Your task to perform on an android device: check battery use Image 0: 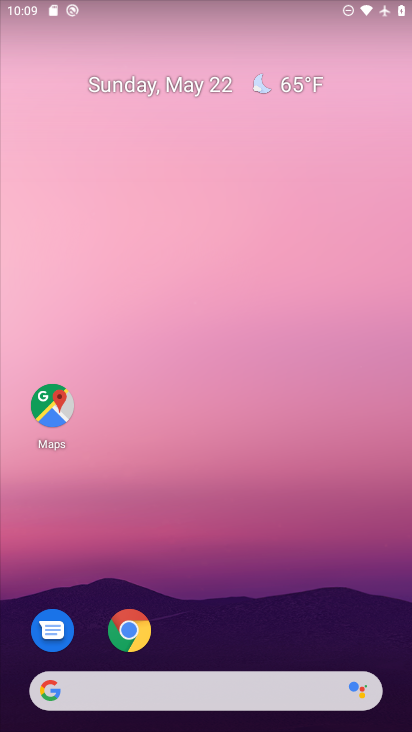
Step 0: drag from (189, 695) to (389, 60)
Your task to perform on an android device: check battery use Image 1: 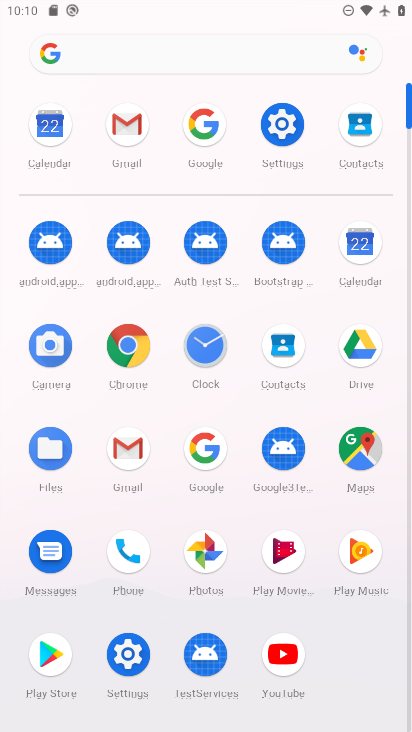
Step 1: click (291, 129)
Your task to perform on an android device: check battery use Image 2: 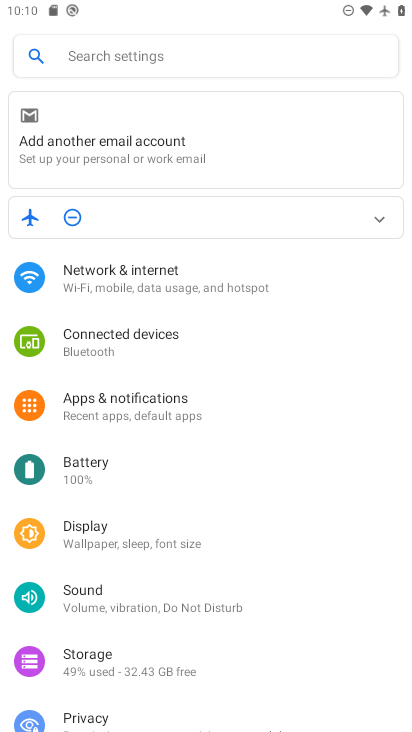
Step 2: drag from (211, 534) to (279, 326)
Your task to perform on an android device: check battery use Image 3: 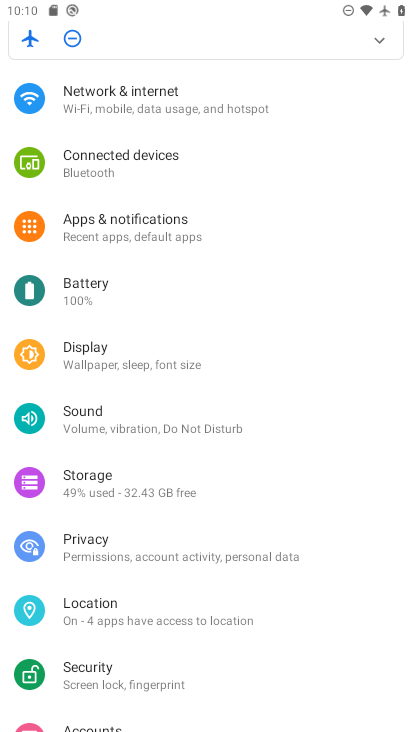
Step 3: click (109, 289)
Your task to perform on an android device: check battery use Image 4: 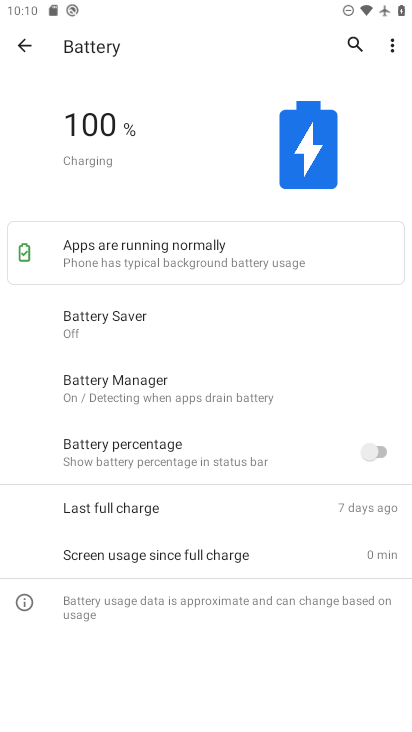
Step 4: click (391, 50)
Your task to perform on an android device: check battery use Image 5: 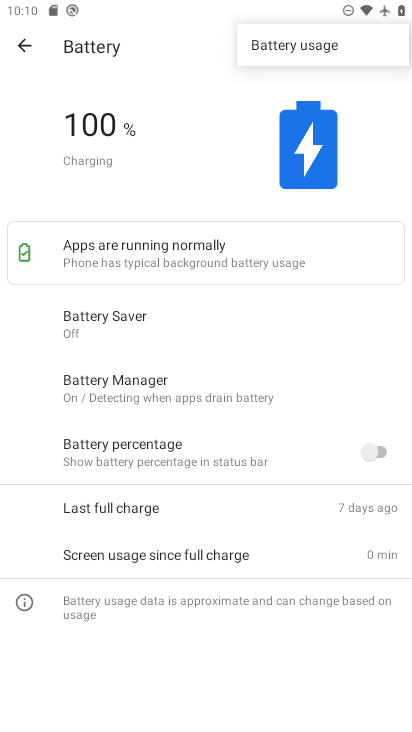
Step 5: click (307, 52)
Your task to perform on an android device: check battery use Image 6: 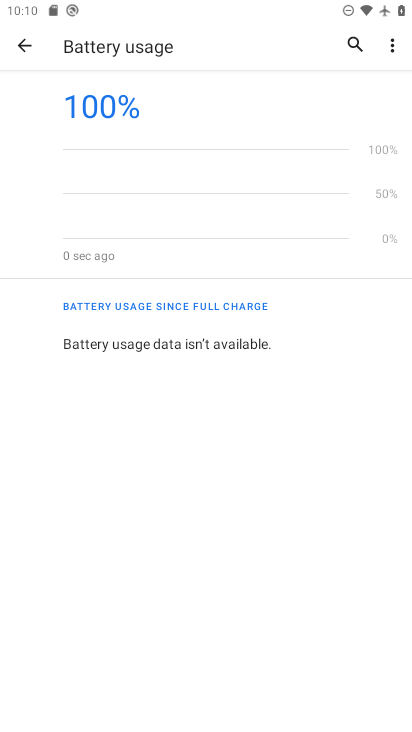
Step 6: task complete